Your task to perform on an android device: Find coffee shops on Maps Image 0: 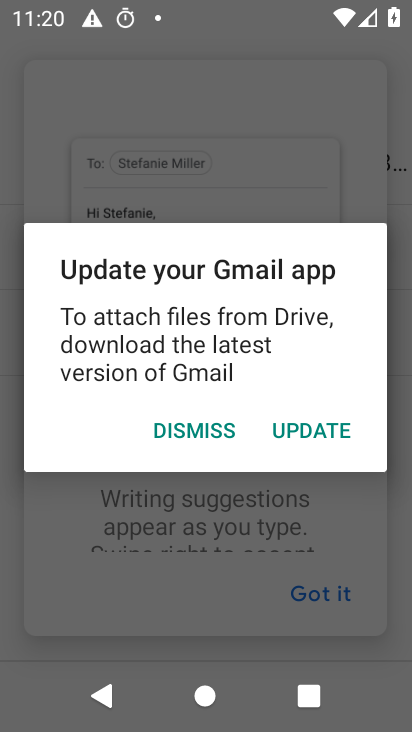
Step 0: click (187, 419)
Your task to perform on an android device: Find coffee shops on Maps Image 1: 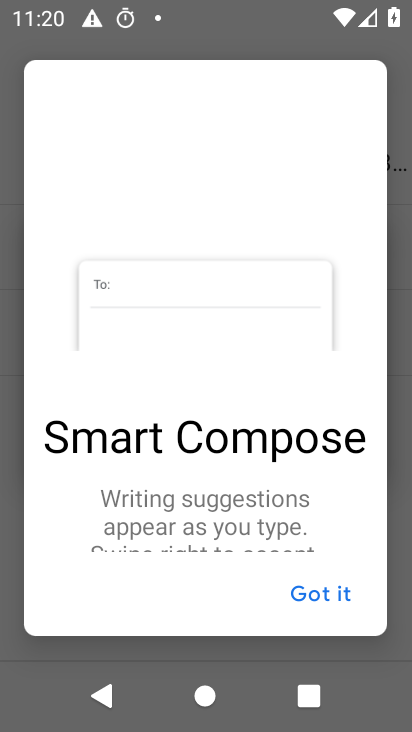
Step 1: press home button
Your task to perform on an android device: Find coffee shops on Maps Image 2: 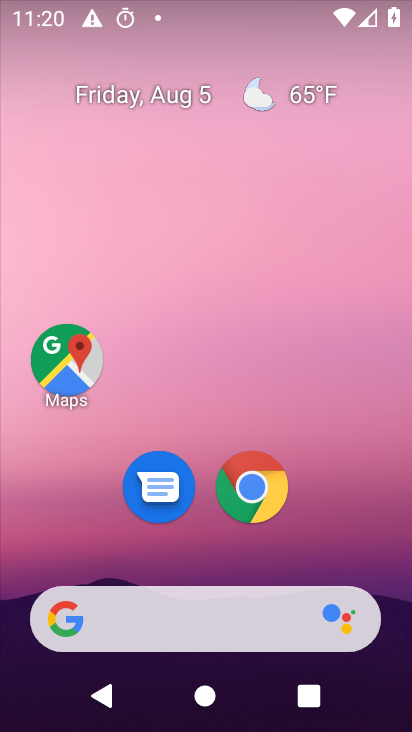
Step 2: click (51, 368)
Your task to perform on an android device: Find coffee shops on Maps Image 3: 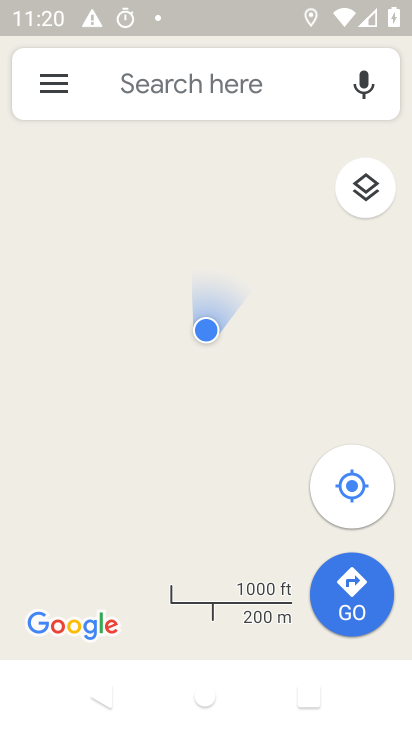
Step 3: click (175, 77)
Your task to perform on an android device: Find coffee shops on Maps Image 4: 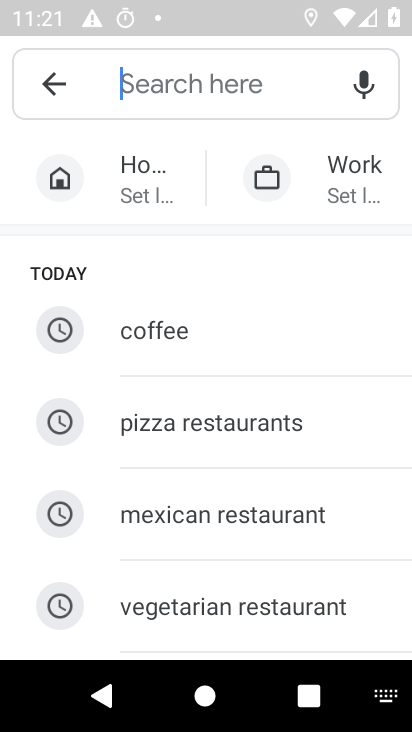
Step 4: type "coffee shops"
Your task to perform on an android device: Find coffee shops on Maps Image 5: 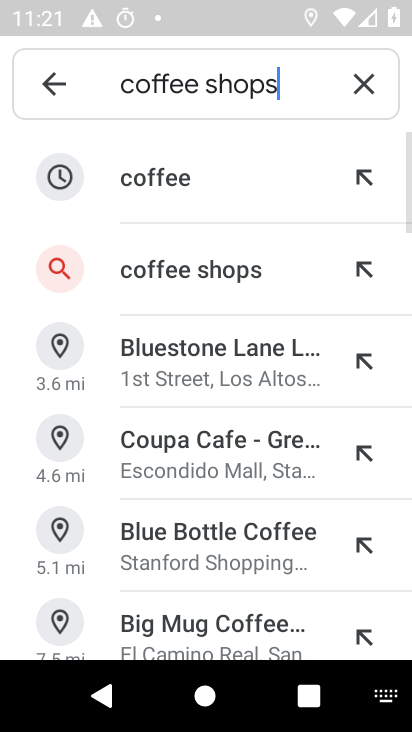
Step 5: click (230, 275)
Your task to perform on an android device: Find coffee shops on Maps Image 6: 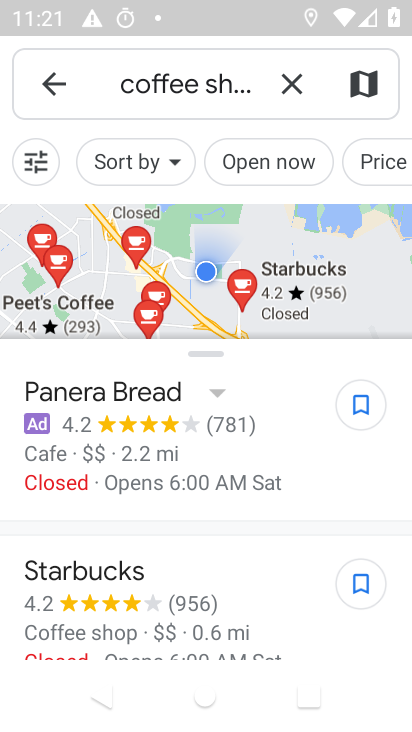
Step 6: task complete